Your task to perform on an android device: Open battery settings Image 0: 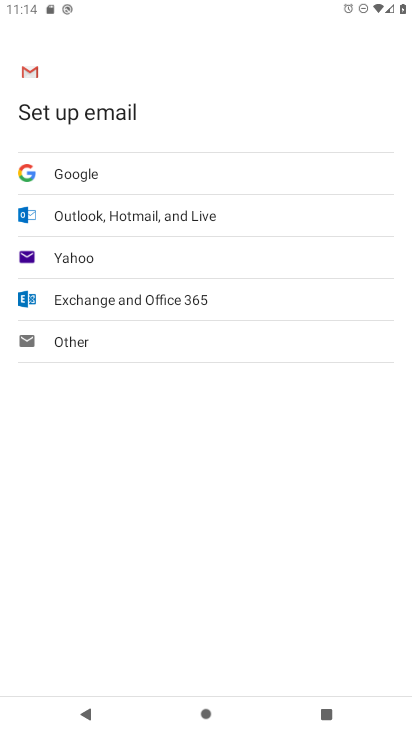
Step 0: press back button
Your task to perform on an android device: Open battery settings Image 1: 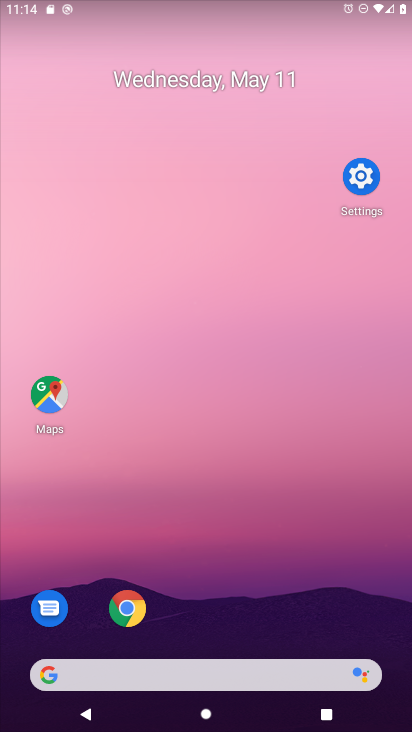
Step 1: drag from (242, 595) to (12, 78)
Your task to perform on an android device: Open battery settings Image 2: 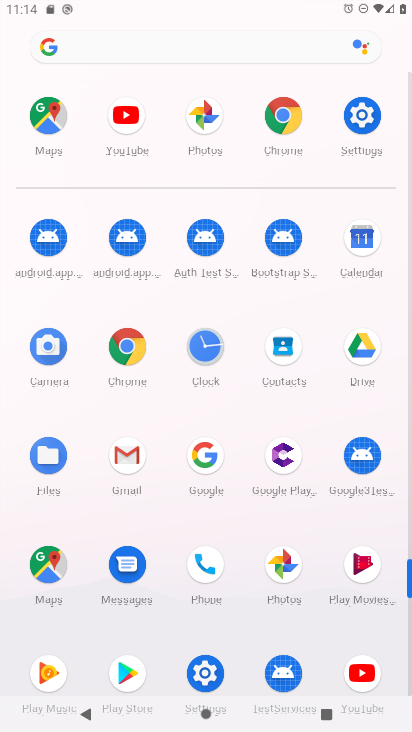
Step 2: click (355, 120)
Your task to perform on an android device: Open battery settings Image 3: 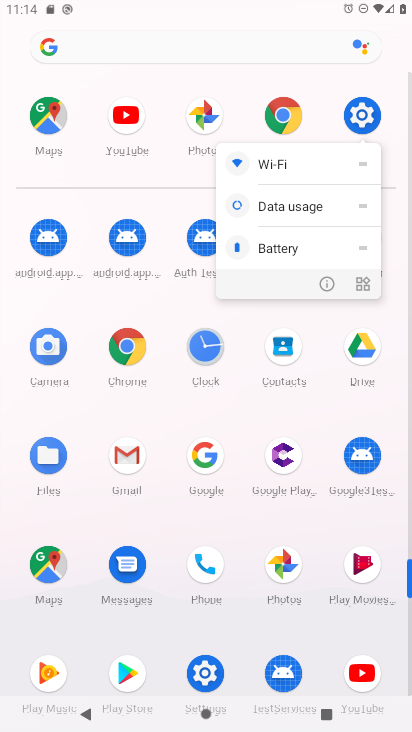
Step 3: click (356, 116)
Your task to perform on an android device: Open battery settings Image 4: 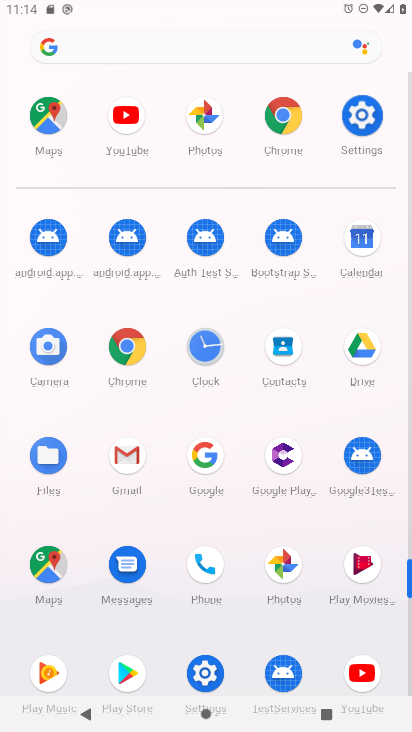
Step 4: click (356, 114)
Your task to perform on an android device: Open battery settings Image 5: 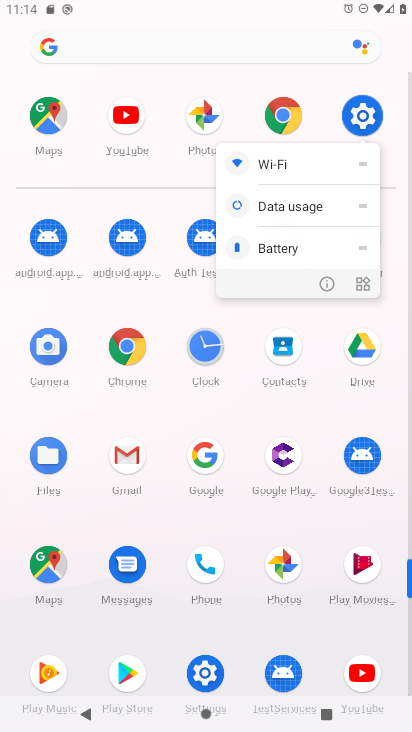
Step 5: click (355, 112)
Your task to perform on an android device: Open battery settings Image 6: 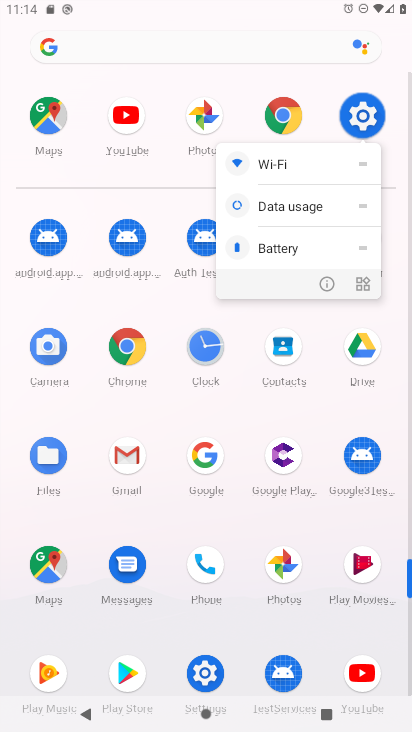
Step 6: click (355, 112)
Your task to perform on an android device: Open battery settings Image 7: 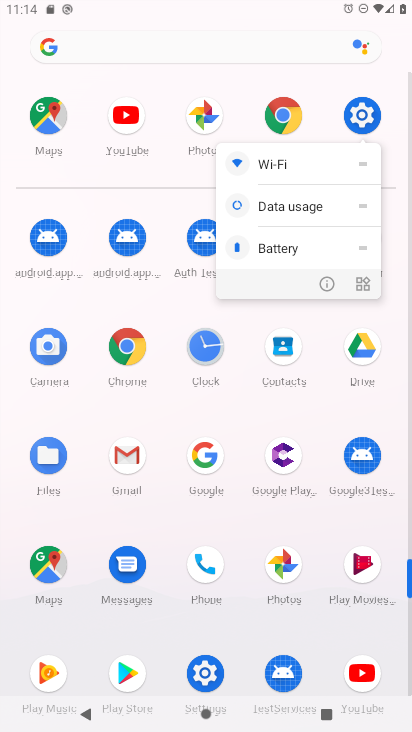
Step 7: click (355, 112)
Your task to perform on an android device: Open battery settings Image 8: 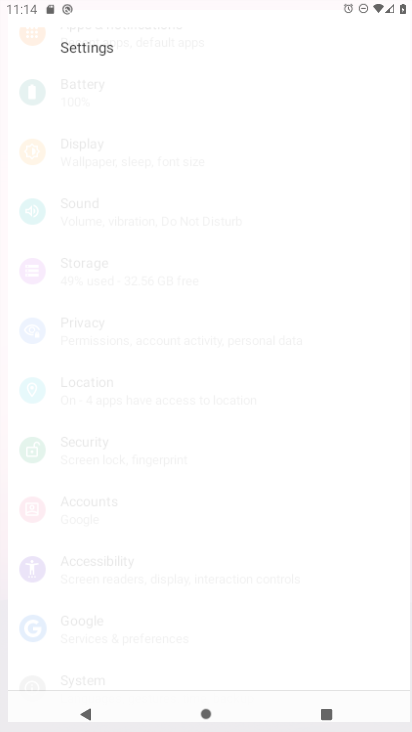
Step 8: click (355, 112)
Your task to perform on an android device: Open battery settings Image 9: 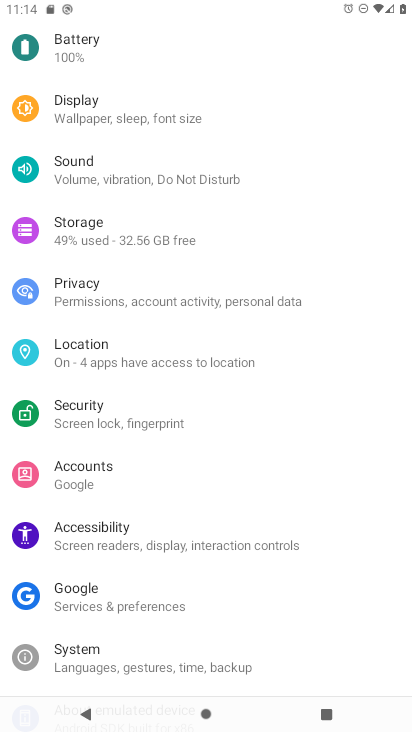
Step 9: click (355, 112)
Your task to perform on an android device: Open battery settings Image 10: 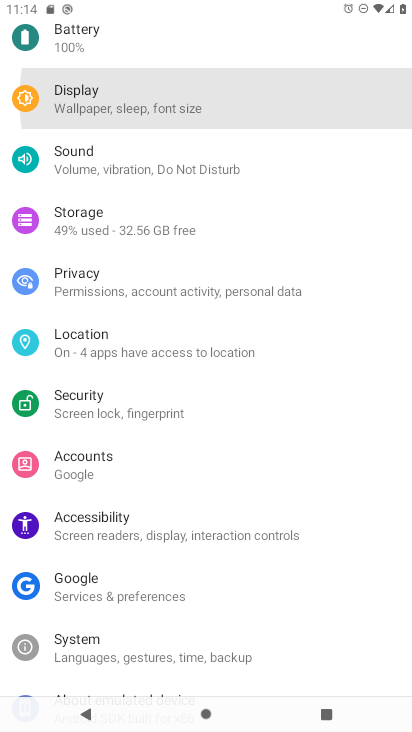
Step 10: click (356, 112)
Your task to perform on an android device: Open battery settings Image 11: 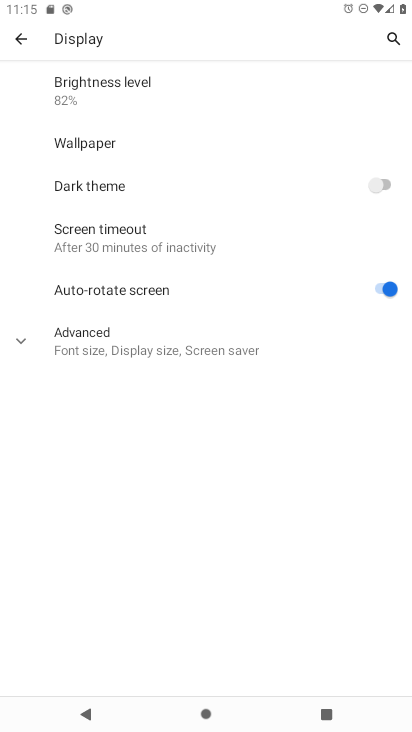
Step 11: click (22, 41)
Your task to perform on an android device: Open battery settings Image 12: 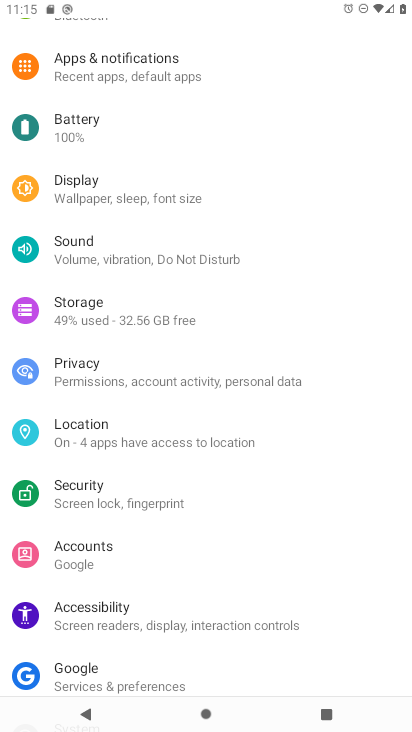
Step 12: click (77, 114)
Your task to perform on an android device: Open battery settings Image 13: 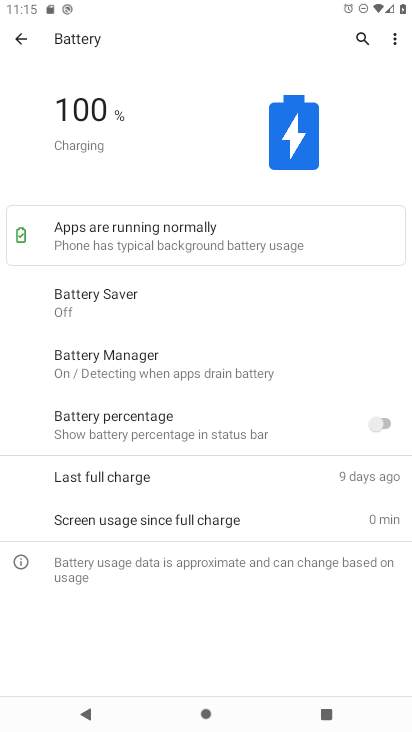
Step 13: press home button
Your task to perform on an android device: Open battery settings Image 14: 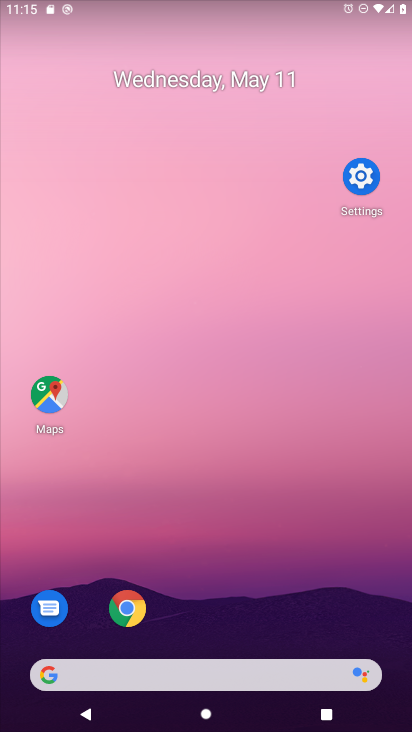
Step 14: drag from (260, 548) to (109, 59)
Your task to perform on an android device: Open battery settings Image 15: 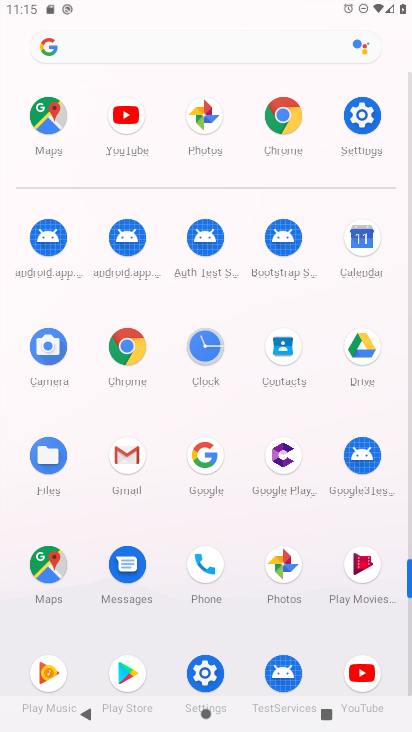
Step 15: click (361, 107)
Your task to perform on an android device: Open battery settings Image 16: 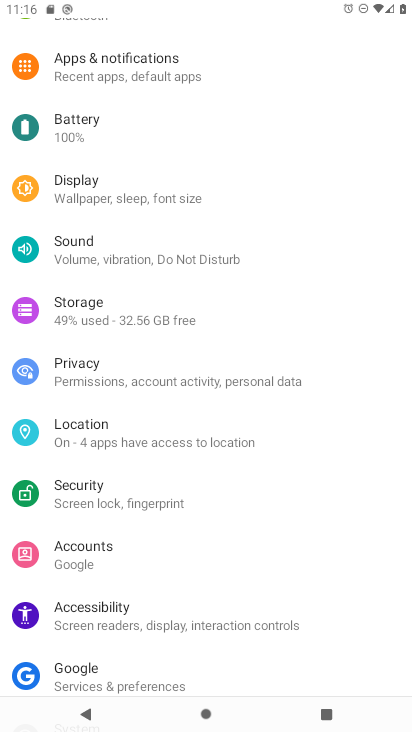
Step 16: click (62, 102)
Your task to perform on an android device: Open battery settings Image 17: 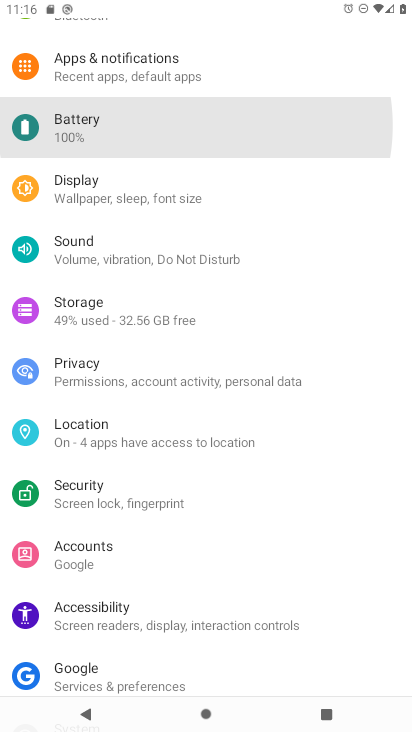
Step 17: click (73, 124)
Your task to perform on an android device: Open battery settings Image 18: 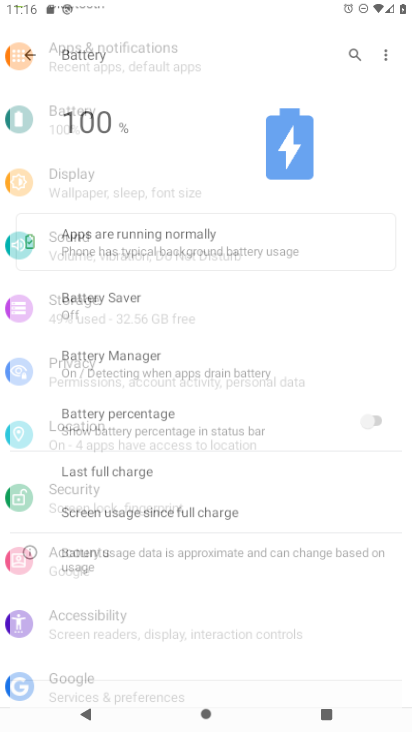
Step 18: click (73, 124)
Your task to perform on an android device: Open battery settings Image 19: 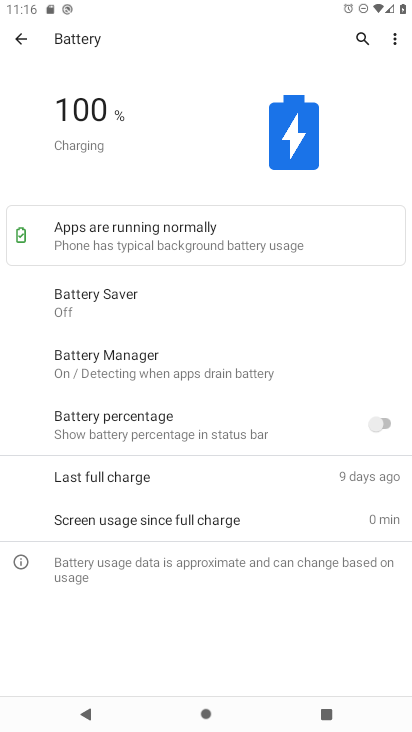
Step 19: task complete